Your task to perform on an android device: Go to network settings Image 0: 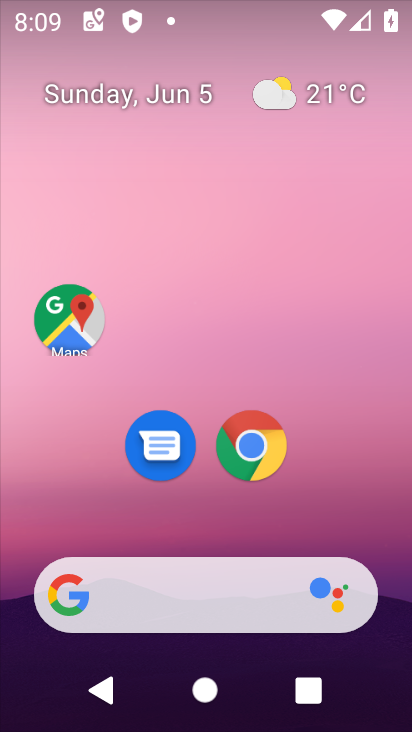
Step 0: drag from (342, 509) to (297, 143)
Your task to perform on an android device: Go to network settings Image 1: 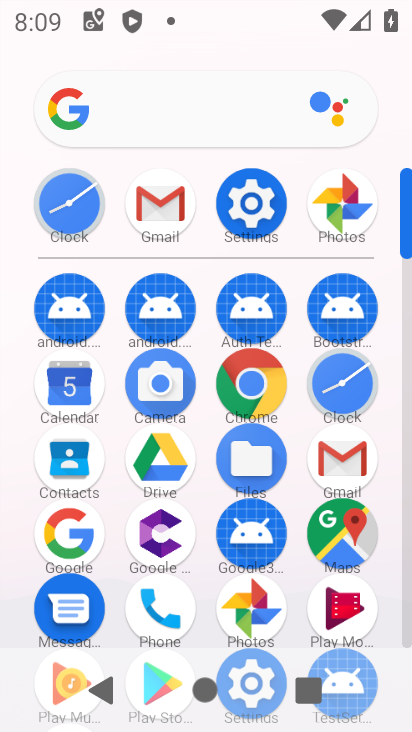
Step 1: click (238, 196)
Your task to perform on an android device: Go to network settings Image 2: 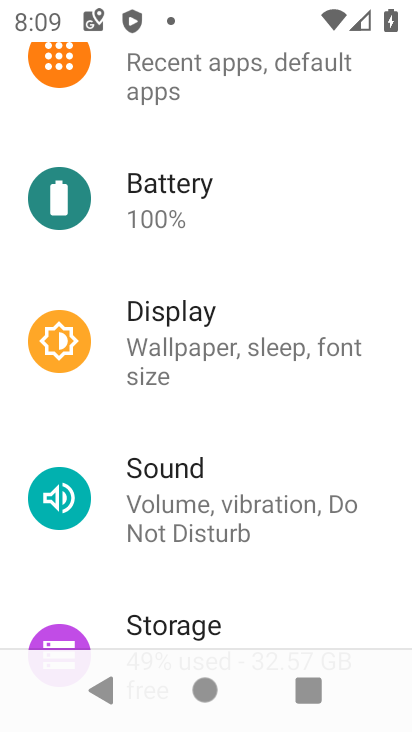
Step 2: drag from (318, 148) to (319, 636)
Your task to perform on an android device: Go to network settings Image 3: 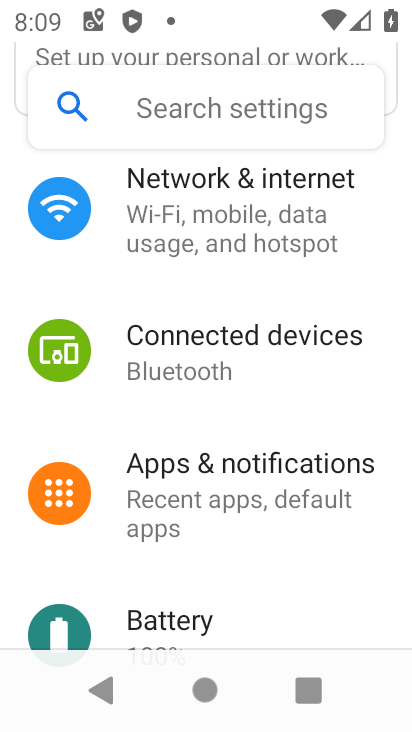
Step 3: click (199, 183)
Your task to perform on an android device: Go to network settings Image 4: 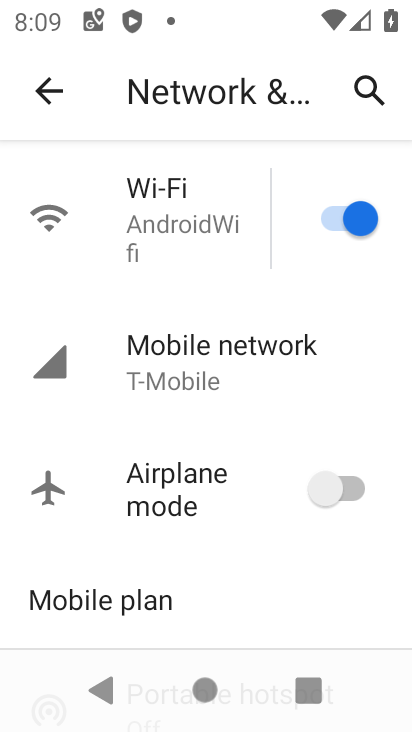
Step 4: click (161, 344)
Your task to perform on an android device: Go to network settings Image 5: 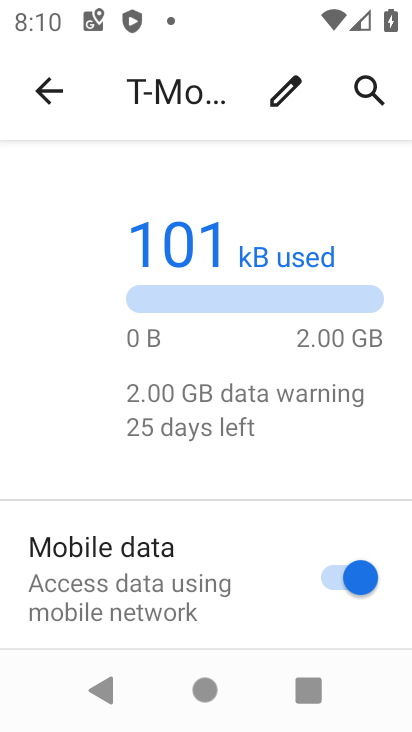
Step 5: task complete